Your task to perform on an android device: Go to Maps Image 0: 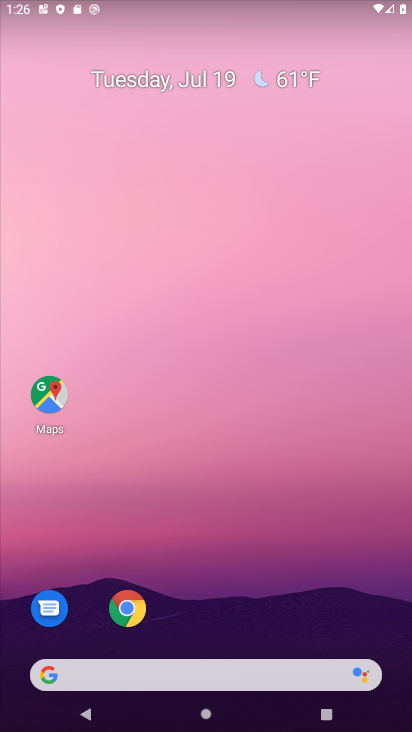
Step 0: drag from (285, 256) to (240, 89)
Your task to perform on an android device: Go to Maps Image 1: 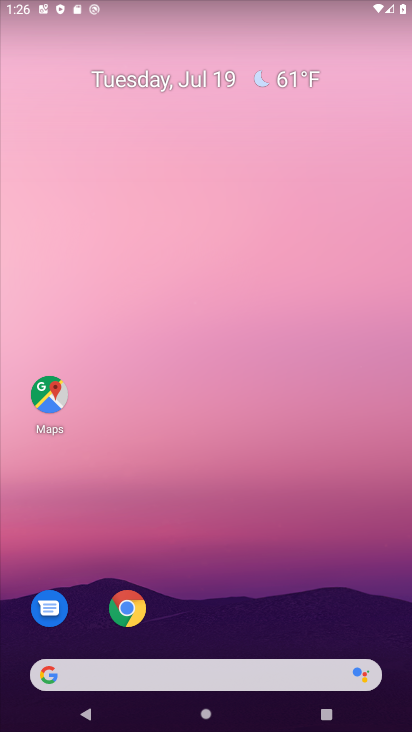
Step 1: drag from (283, 601) to (349, 26)
Your task to perform on an android device: Go to Maps Image 2: 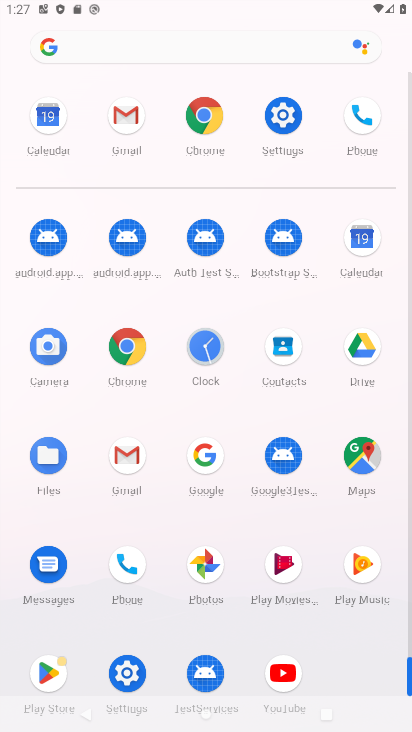
Step 2: click (371, 465)
Your task to perform on an android device: Go to Maps Image 3: 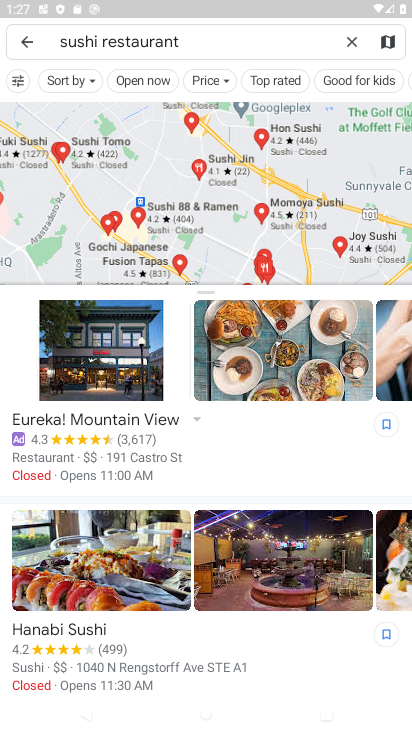
Step 3: task complete